Your task to perform on an android device: turn pop-ups off in chrome Image 0: 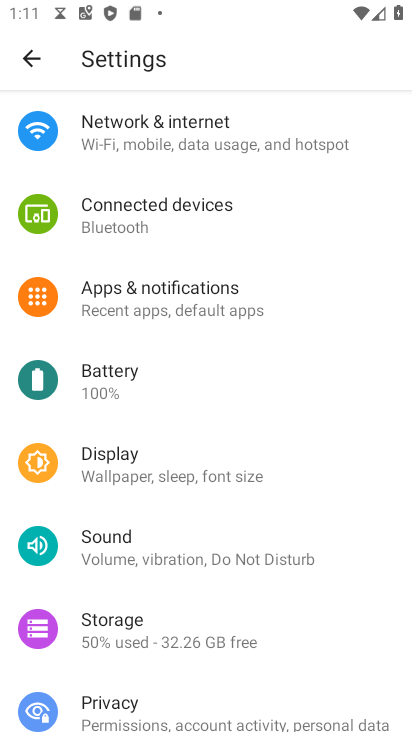
Step 0: press home button
Your task to perform on an android device: turn pop-ups off in chrome Image 1: 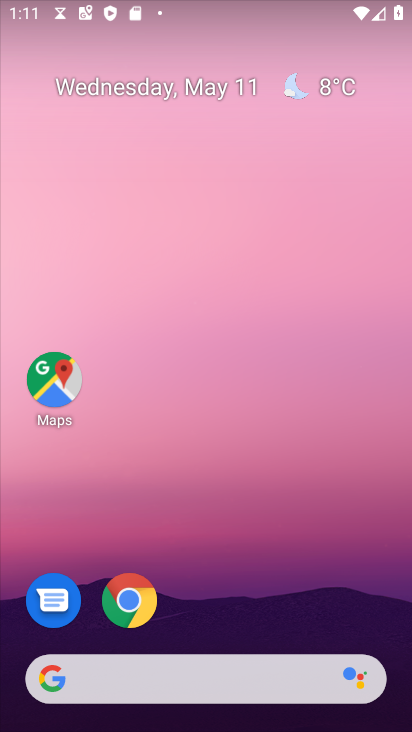
Step 1: click (123, 600)
Your task to perform on an android device: turn pop-ups off in chrome Image 2: 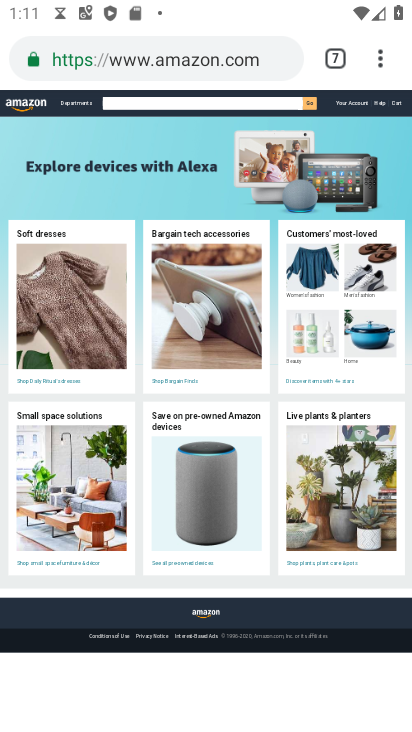
Step 2: click (379, 58)
Your task to perform on an android device: turn pop-ups off in chrome Image 3: 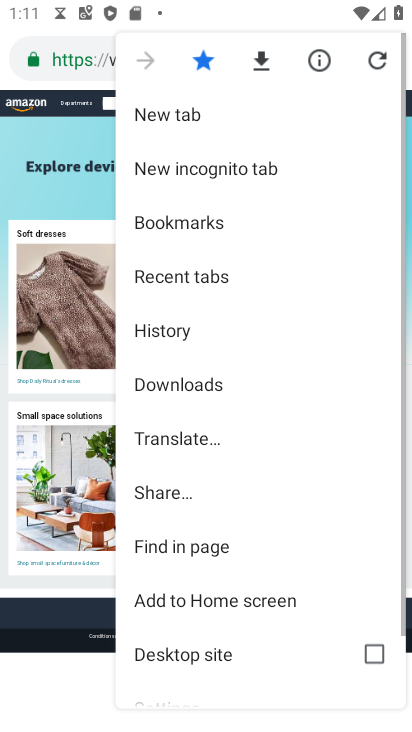
Step 3: drag from (228, 608) to (271, 279)
Your task to perform on an android device: turn pop-ups off in chrome Image 4: 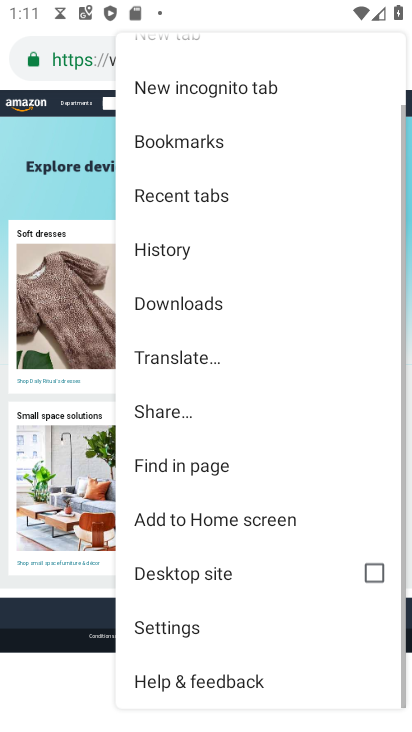
Step 4: click (207, 626)
Your task to perform on an android device: turn pop-ups off in chrome Image 5: 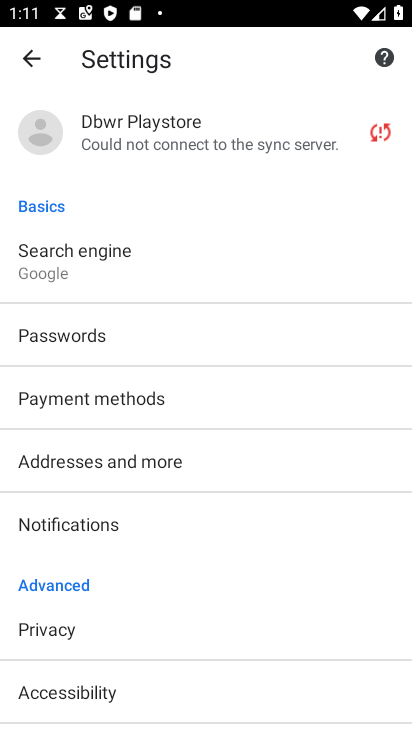
Step 5: drag from (175, 601) to (226, 206)
Your task to perform on an android device: turn pop-ups off in chrome Image 6: 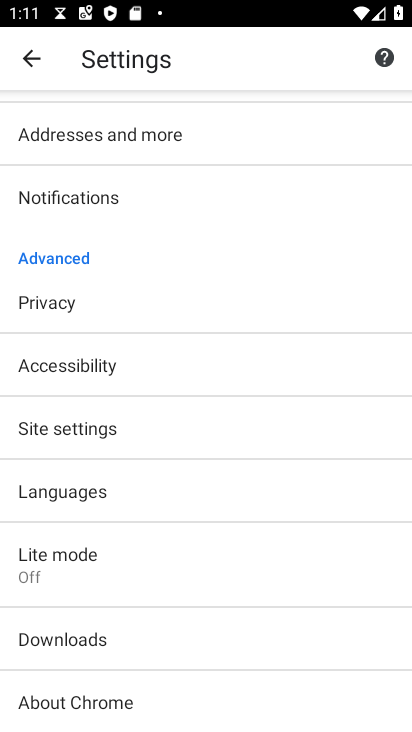
Step 6: click (142, 436)
Your task to perform on an android device: turn pop-ups off in chrome Image 7: 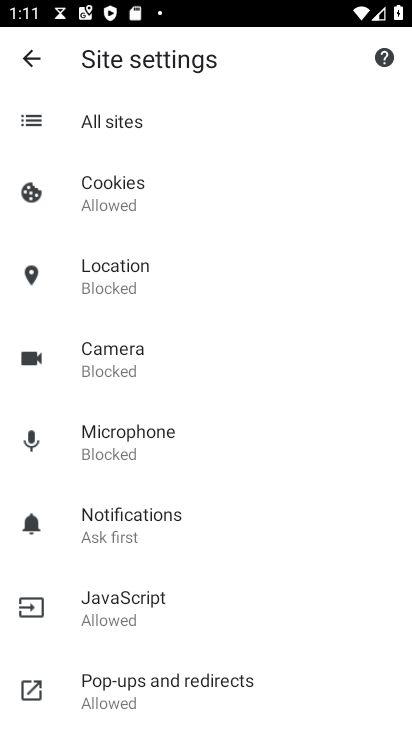
Step 7: click (172, 678)
Your task to perform on an android device: turn pop-ups off in chrome Image 8: 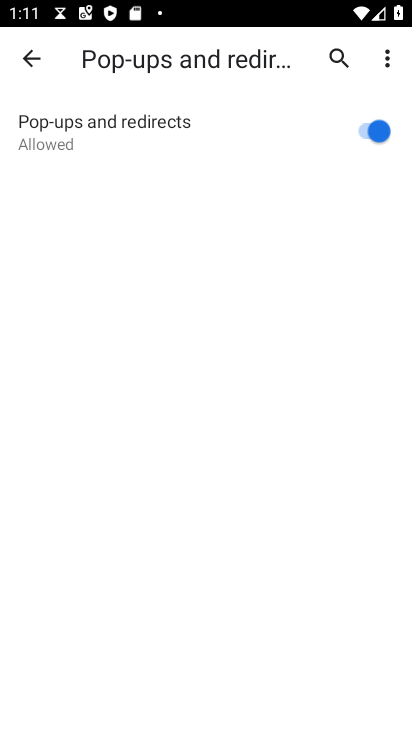
Step 8: click (371, 126)
Your task to perform on an android device: turn pop-ups off in chrome Image 9: 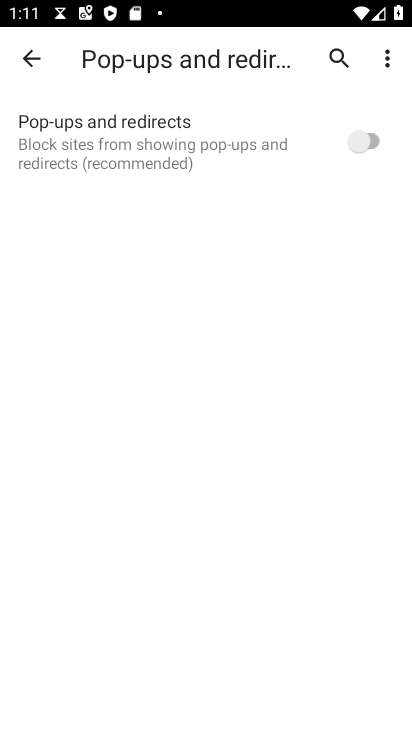
Step 9: task complete